Your task to perform on an android device: Open Google Chrome Image 0: 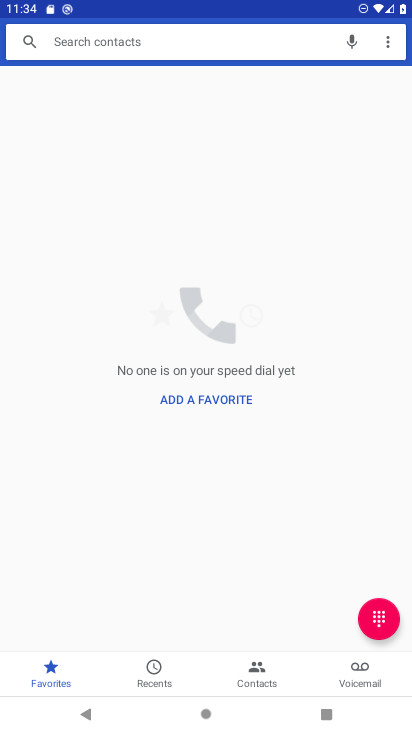
Step 0: press home button
Your task to perform on an android device: Open Google Chrome Image 1: 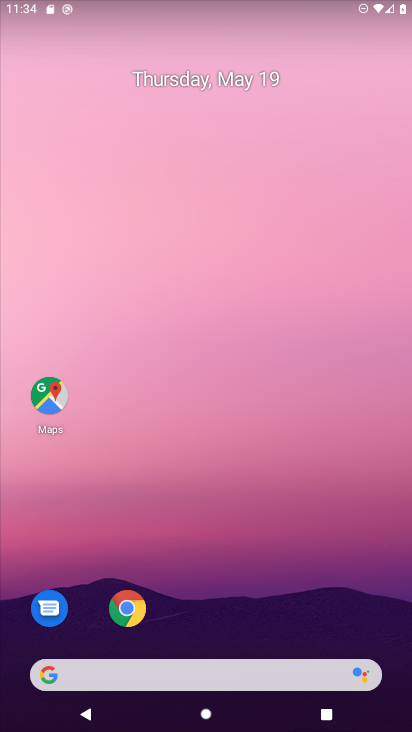
Step 1: click (133, 622)
Your task to perform on an android device: Open Google Chrome Image 2: 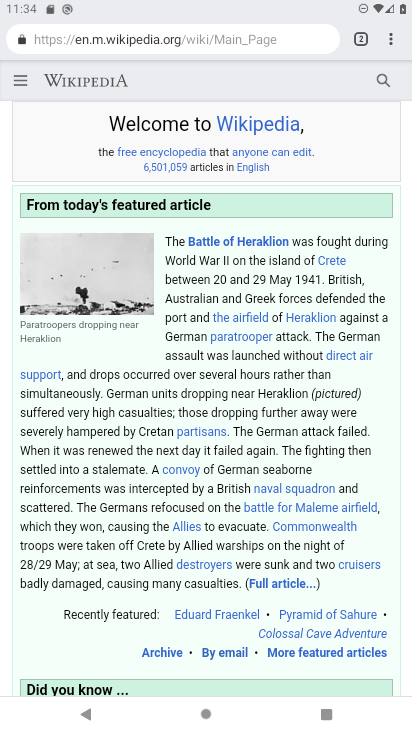
Step 2: task complete